Your task to perform on an android device: check android version Image 0: 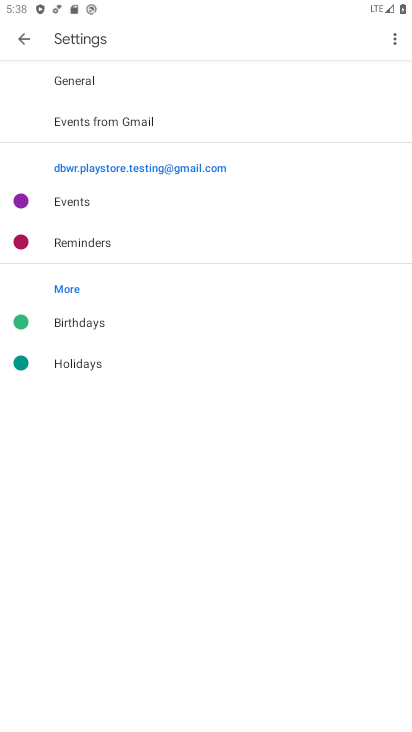
Step 0: press home button
Your task to perform on an android device: check android version Image 1: 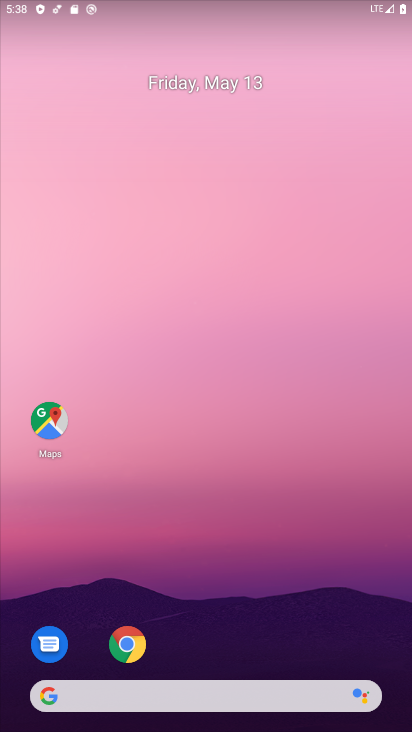
Step 1: drag from (172, 639) to (327, 8)
Your task to perform on an android device: check android version Image 2: 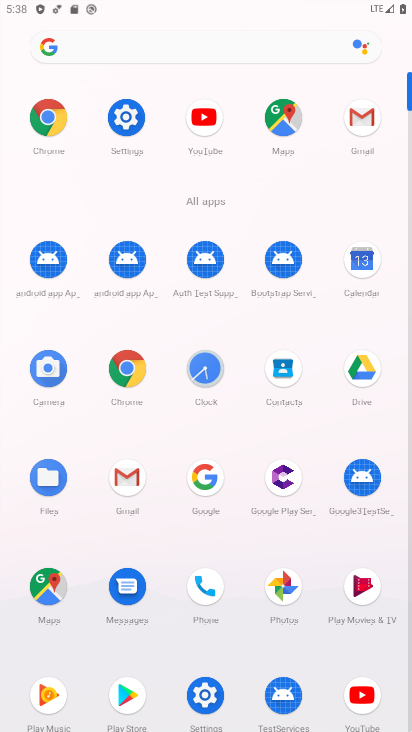
Step 2: click (132, 144)
Your task to perform on an android device: check android version Image 3: 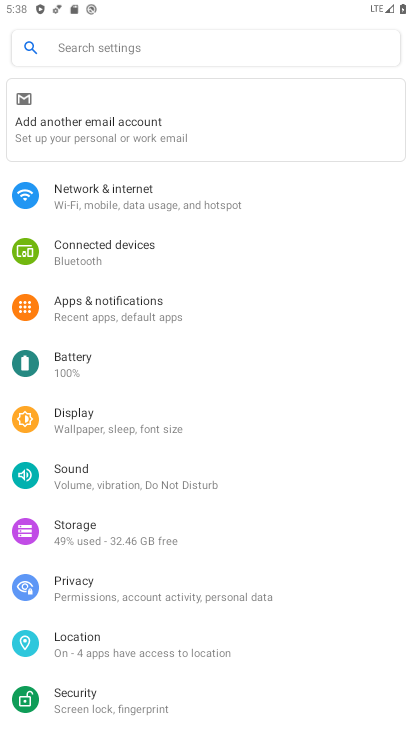
Step 3: drag from (138, 581) to (257, 0)
Your task to perform on an android device: check android version Image 4: 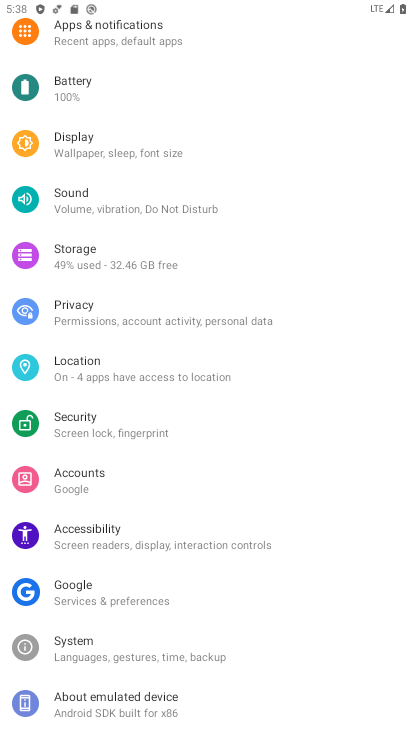
Step 4: click (110, 712)
Your task to perform on an android device: check android version Image 5: 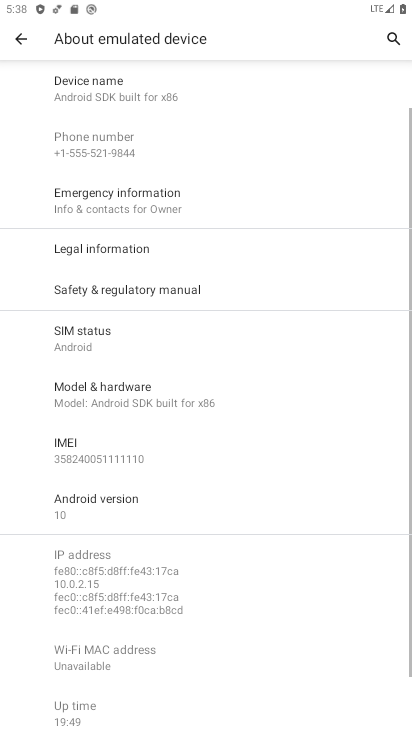
Step 5: click (112, 503)
Your task to perform on an android device: check android version Image 6: 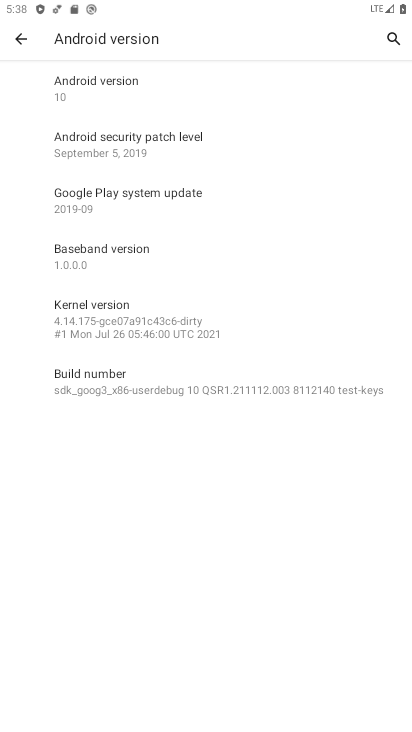
Step 6: task complete